Your task to perform on an android device: open a new tab in the chrome app Image 0: 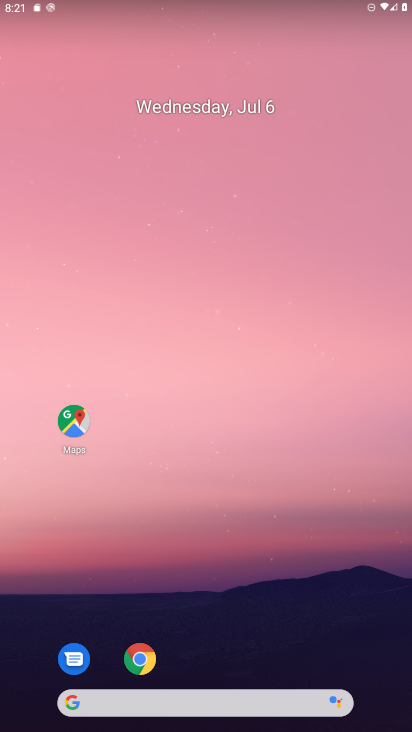
Step 0: drag from (258, 700) to (250, 292)
Your task to perform on an android device: open a new tab in the chrome app Image 1: 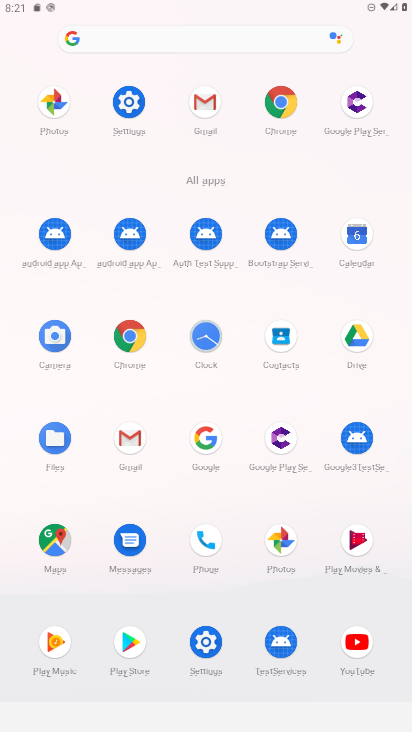
Step 1: click (134, 344)
Your task to perform on an android device: open a new tab in the chrome app Image 2: 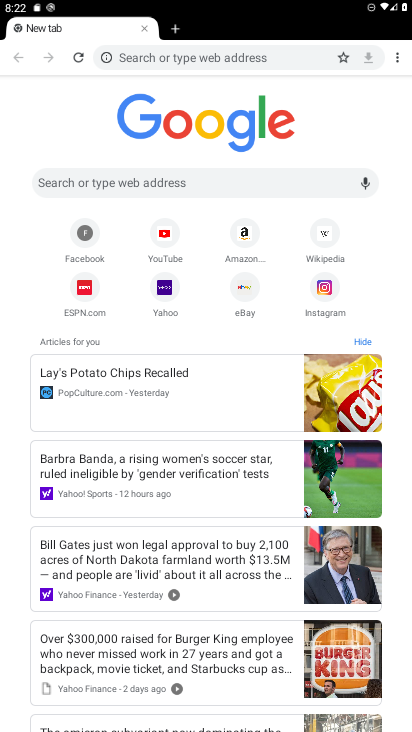
Step 2: click (178, 28)
Your task to perform on an android device: open a new tab in the chrome app Image 3: 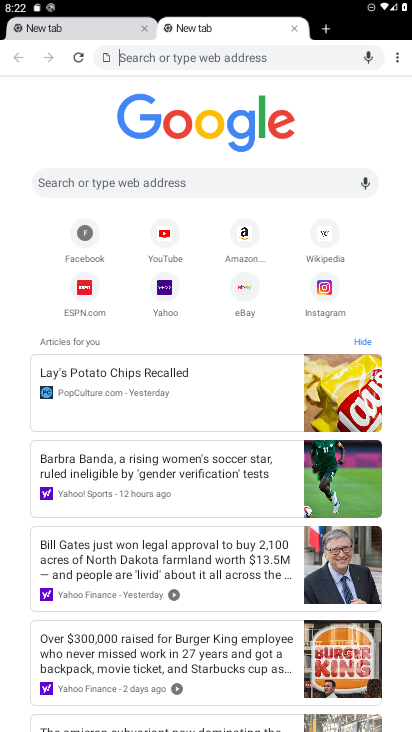
Step 3: task complete